Your task to perform on an android device: turn off priority inbox in the gmail app Image 0: 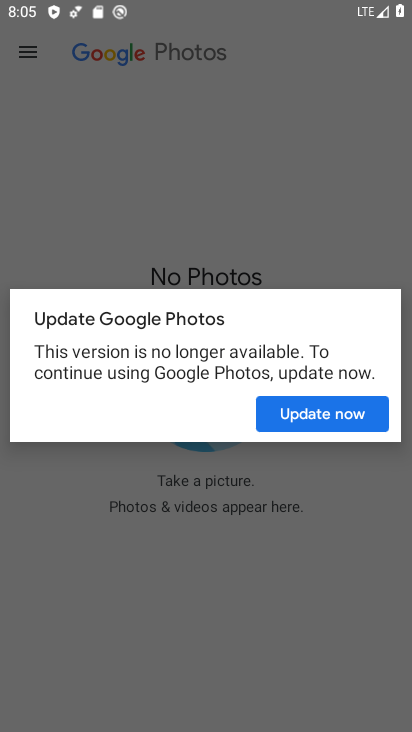
Step 0: press back button
Your task to perform on an android device: turn off priority inbox in the gmail app Image 1: 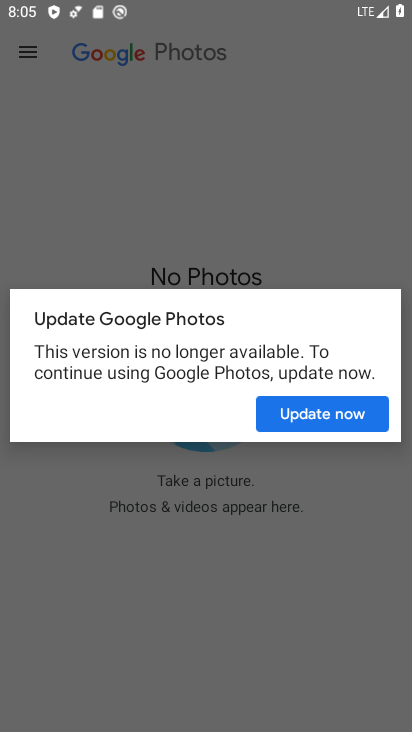
Step 1: press back button
Your task to perform on an android device: turn off priority inbox in the gmail app Image 2: 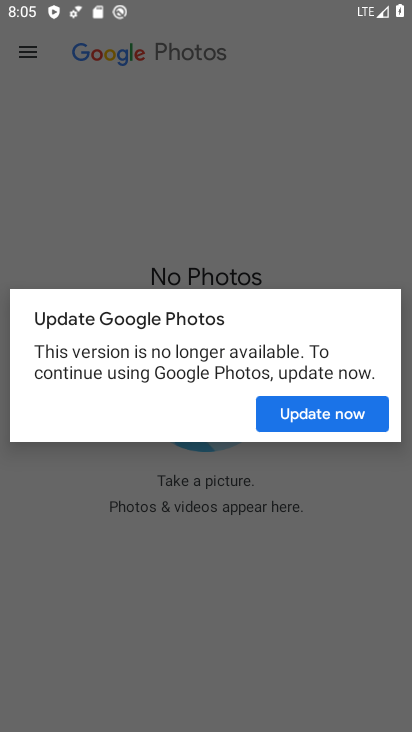
Step 2: press home button
Your task to perform on an android device: turn off priority inbox in the gmail app Image 3: 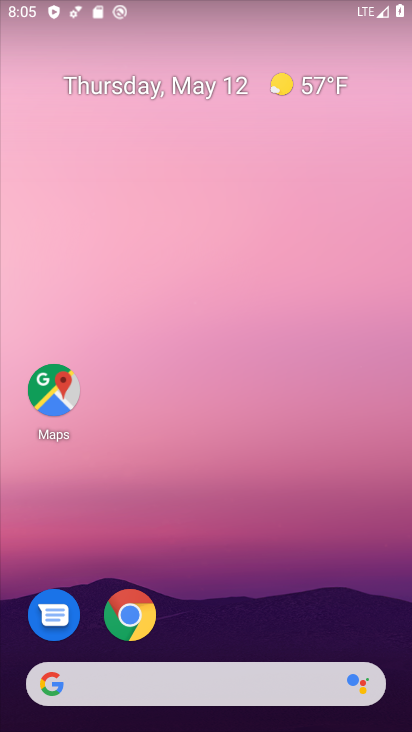
Step 3: drag from (239, 571) to (217, 30)
Your task to perform on an android device: turn off priority inbox in the gmail app Image 4: 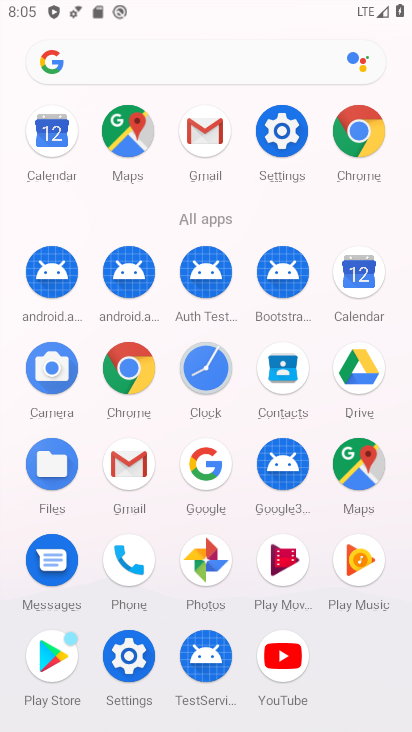
Step 4: click (130, 455)
Your task to perform on an android device: turn off priority inbox in the gmail app Image 5: 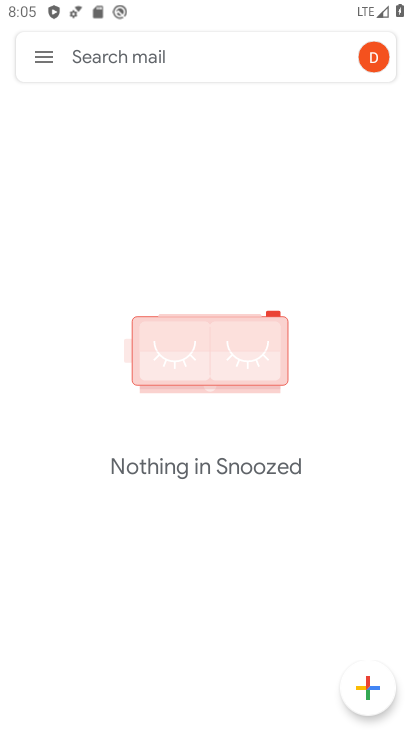
Step 5: click (41, 55)
Your task to perform on an android device: turn off priority inbox in the gmail app Image 6: 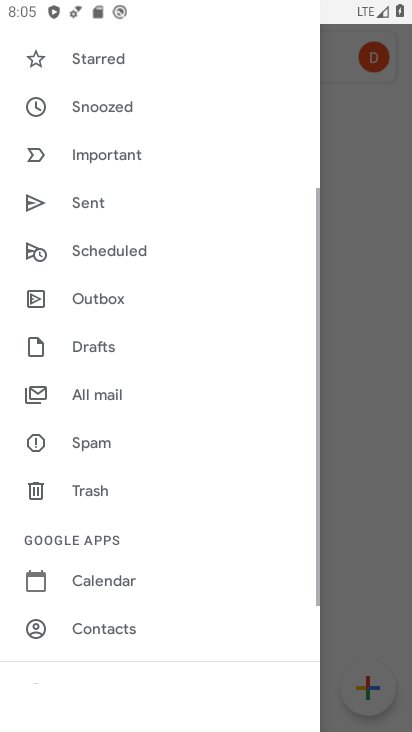
Step 6: drag from (161, 555) to (241, 136)
Your task to perform on an android device: turn off priority inbox in the gmail app Image 7: 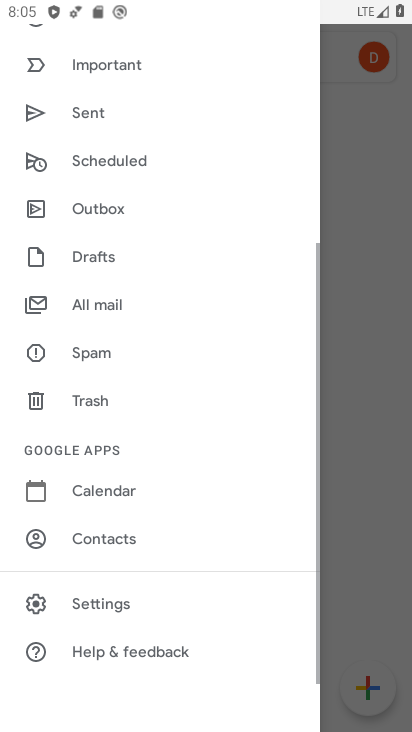
Step 7: click (118, 608)
Your task to perform on an android device: turn off priority inbox in the gmail app Image 8: 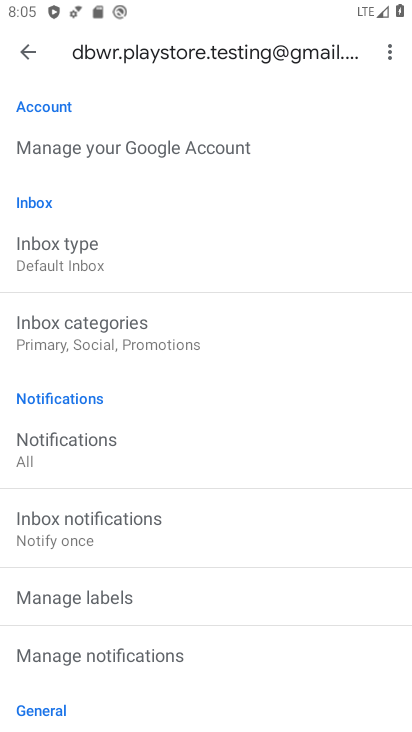
Step 8: click (123, 250)
Your task to perform on an android device: turn off priority inbox in the gmail app Image 9: 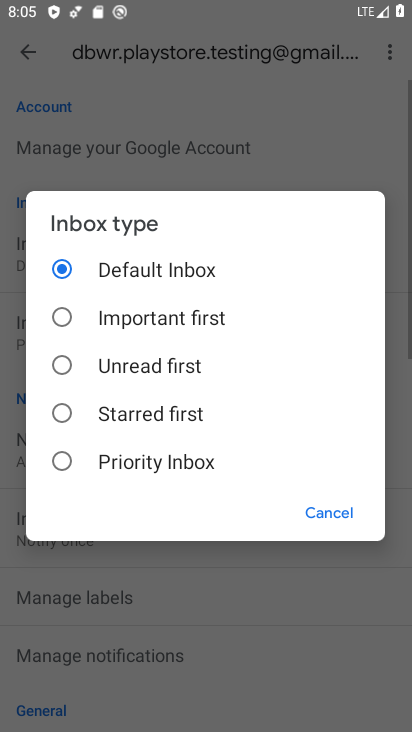
Step 9: click (153, 453)
Your task to perform on an android device: turn off priority inbox in the gmail app Image 10: 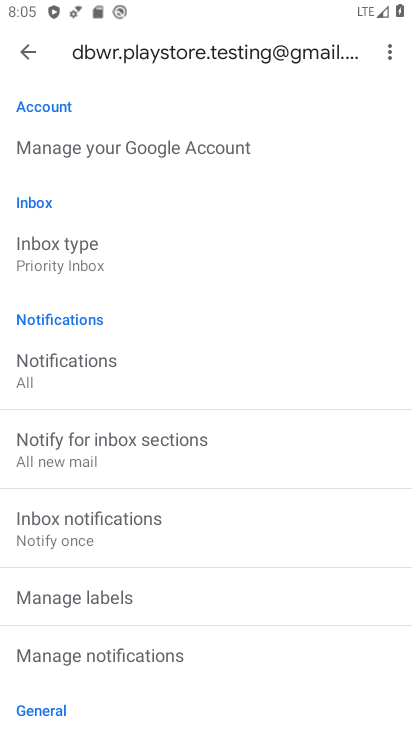
Step 10: click (96, 264)
Your task to perform on an android device: turn off priority inbox in the gmail app Image 11: 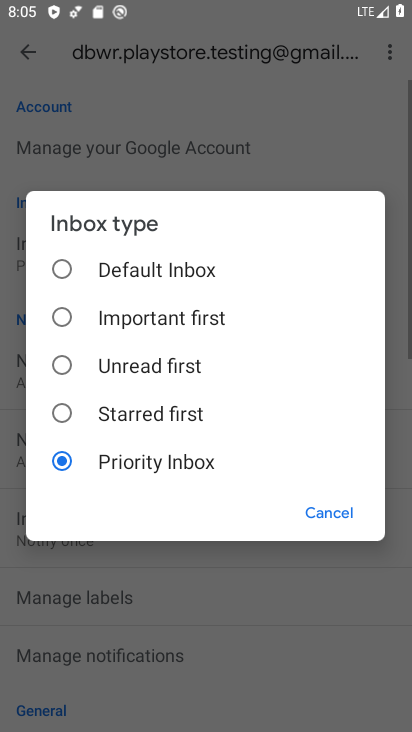
Step 11: click (96, 418)
Your task to perform on an android device: turn off priority inbox in the gmail app Image 12: 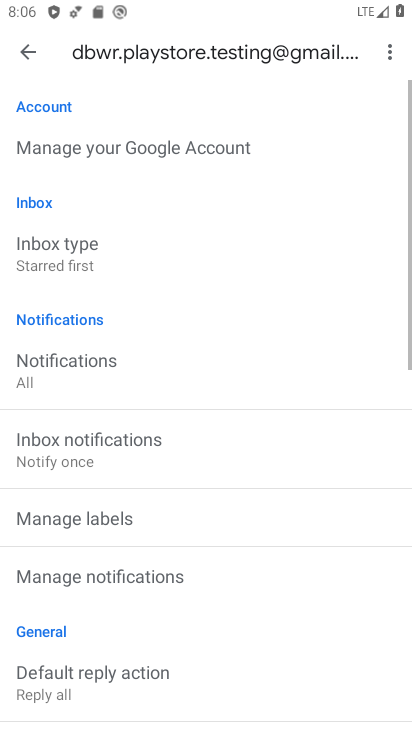
Step 12: task complete